Your task to perform on an android device: open chrome privacy settings Image 0: 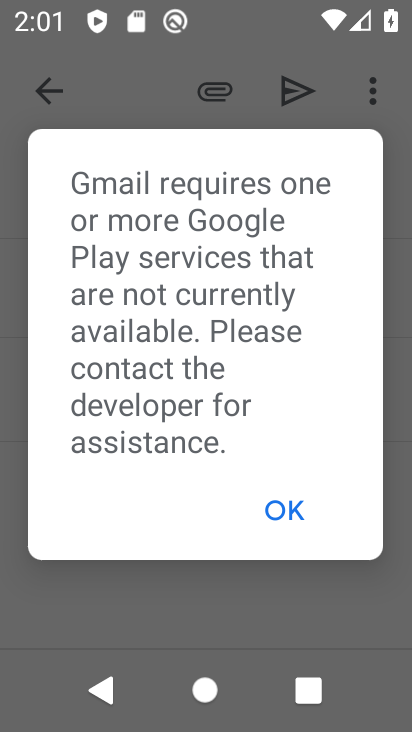
Step 0: click (274, 498)
Your task to perform on an android device: open chrome privacy settings Image 1: 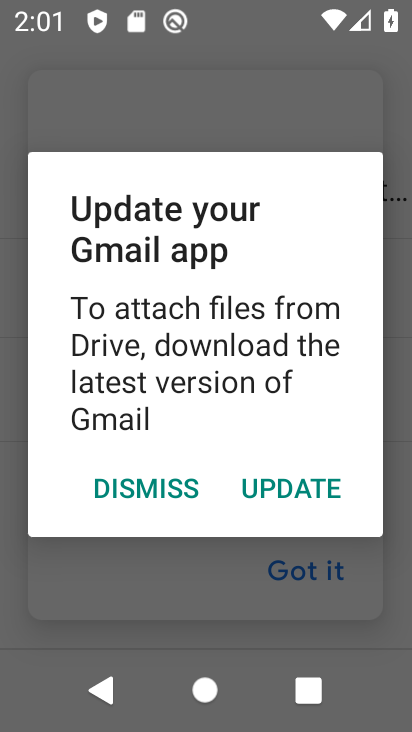
Step 1: press back button
Your task to perform on an android device: open chrome privacy settings Image 2: 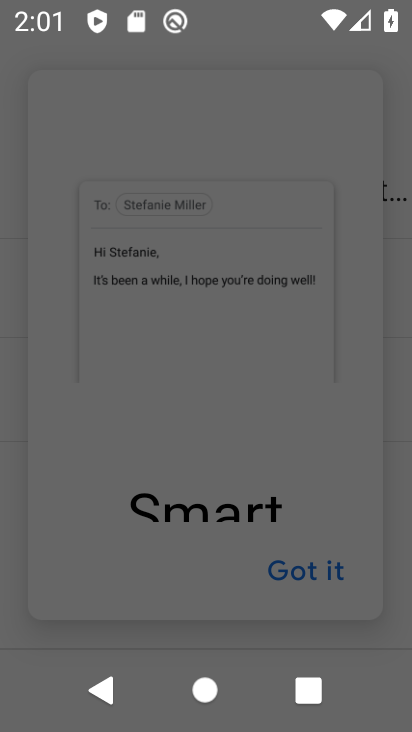
Step 2: press back button
Your task to perform on an android device: open chrome privacy settings Image 3: 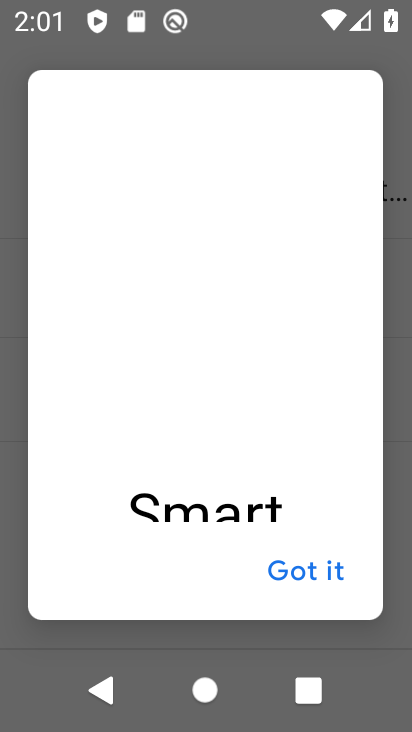
Step 3: press back button
Your task to perform on an android device: open chrome privacy settings Image 4: 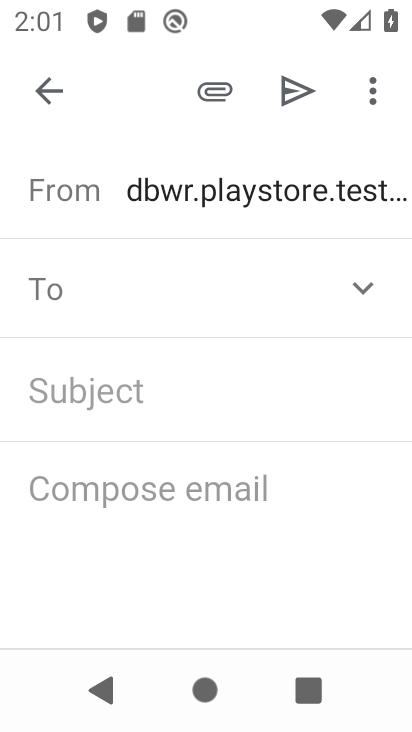
Step 4: press back button
Your task to perform on an android device: open chrome privacy settings Image 5: 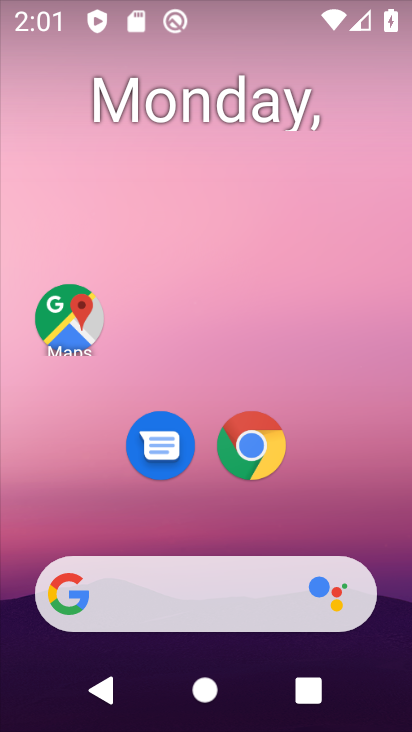
Step 5: drag from (327, 533) to (247, 19)
Your task to perform on an android device: open chrome privacy settings Image 6: 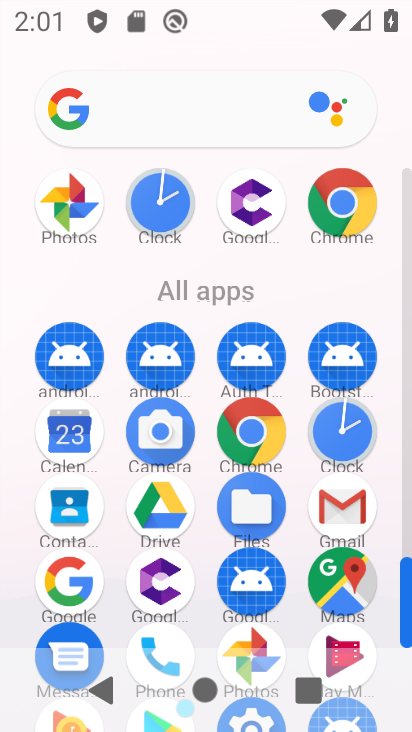
Step 6: drag from (3, 519) to (23, 170)
Your task to perform on an android device: open chrome privacy settings Image 7: 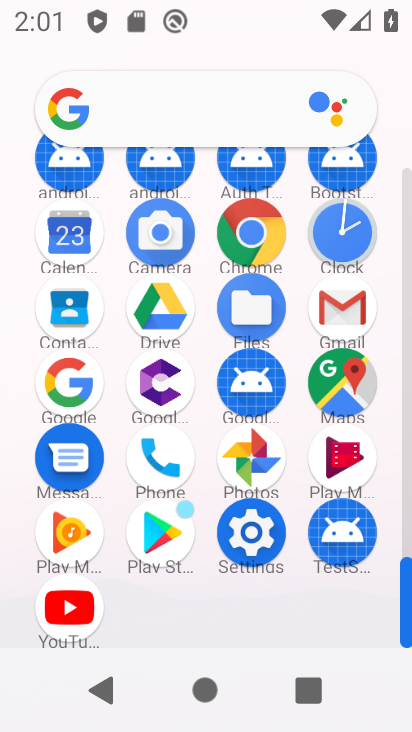
Step 7: click (249, 532)
Your task to perform on an android device: open chrome privacy settings Image 8: 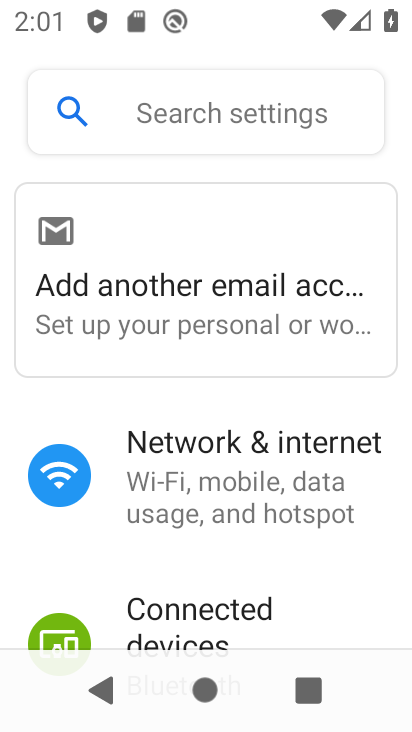
Step 8: drag from (279, 572) to (275, 149)
Your task to perform on an android device: open chrome privacy settings Image 9: 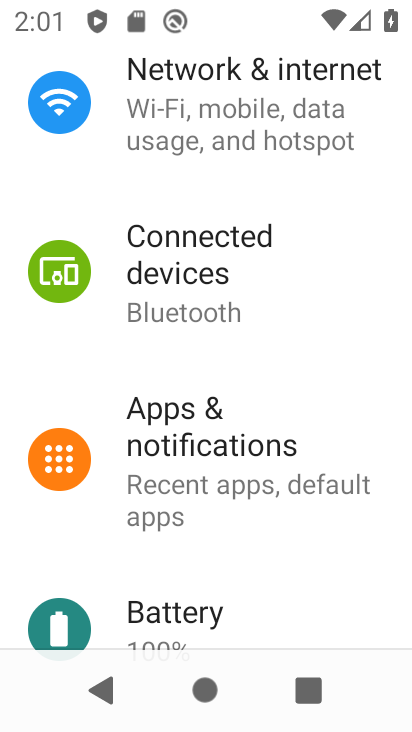
Step 9: drag from (279, 546) to (263, 158)
Your task to perform on an android device: open chrome privacy settings Image 10: 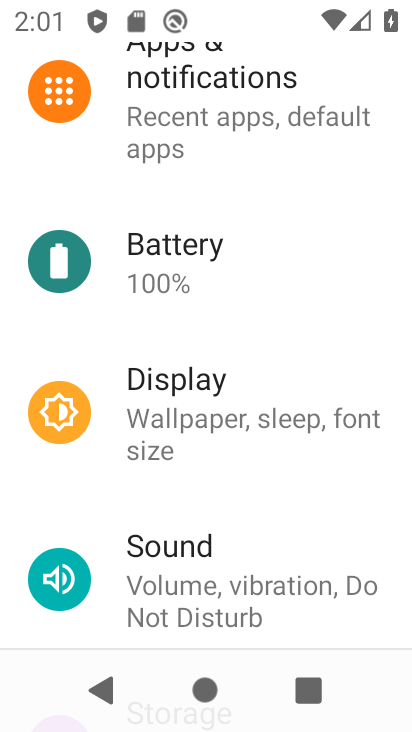
Step 10: press back button
Your task to perform on an android device: open chrome privacy settings Image 11: 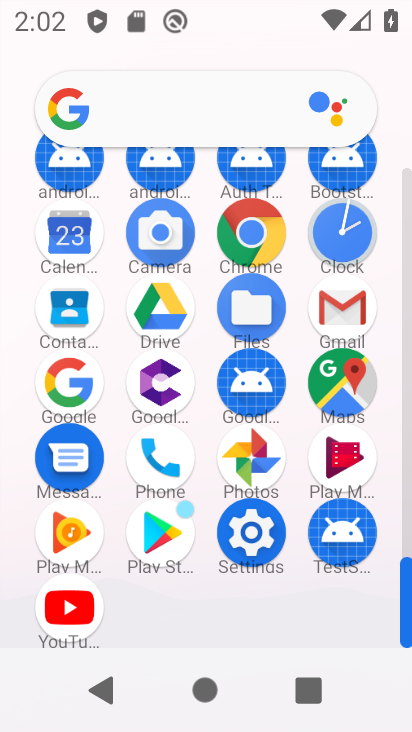
Step 11: click (248, 226)
Your task to perform on an android device: open chrome privacy settings Image 12: 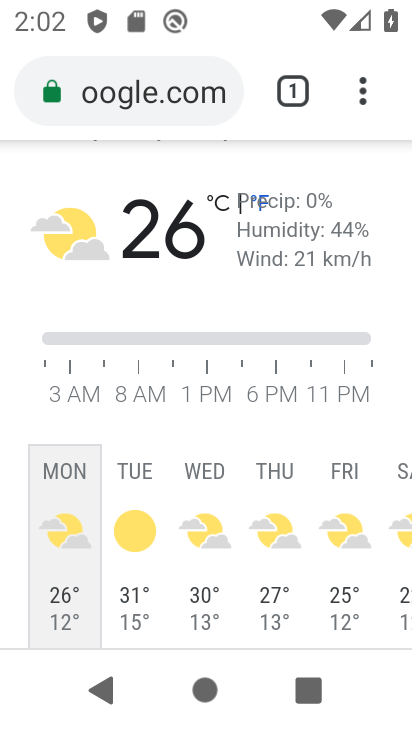
Step 12: drag from (363, 90) to (143, 471)
Your task to perform on an android device: open chrome privacy settings Image 13: 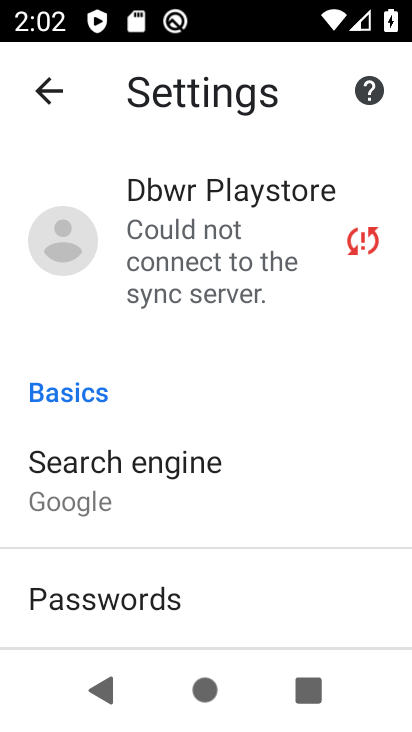
Step 13: drag from (223, 590) to (229, 184)
Your task to perform on an android device: open chrome privacy settings Image 14: 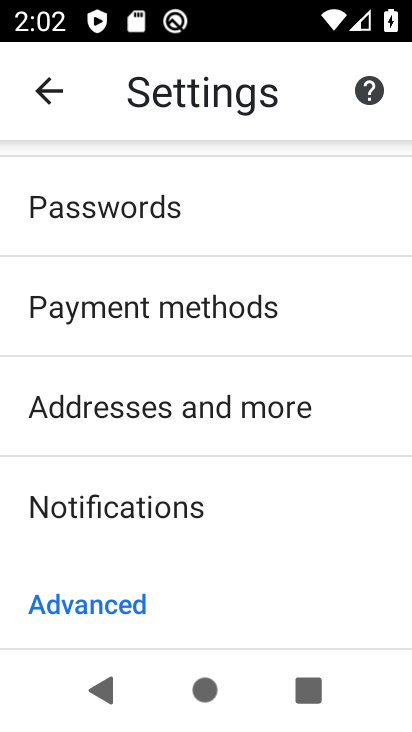
Step 14: drag from (242, 564) to (242, 206)
Your task to perform on an android device: open chrome privacy settings Image 15: 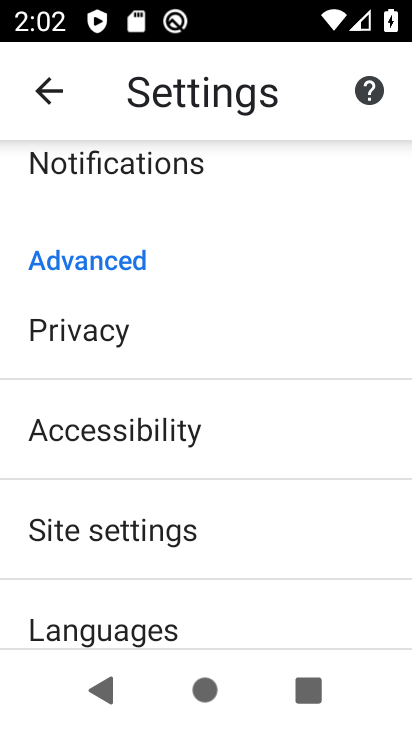
Step 15: drag from (259, 569) to (266, 253)
Your task to perform on an android device: open chrome privacy settings Image 16: 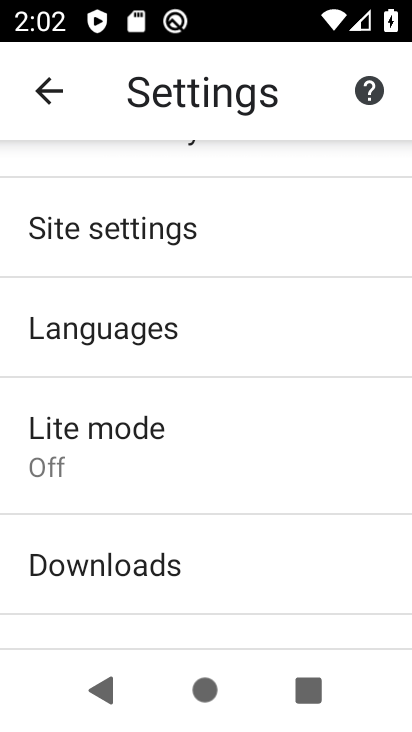
Step 16: drag from (266, 291) to (243, 525)
Your task to perform on an android device: open chrome privacy settings Image 17: 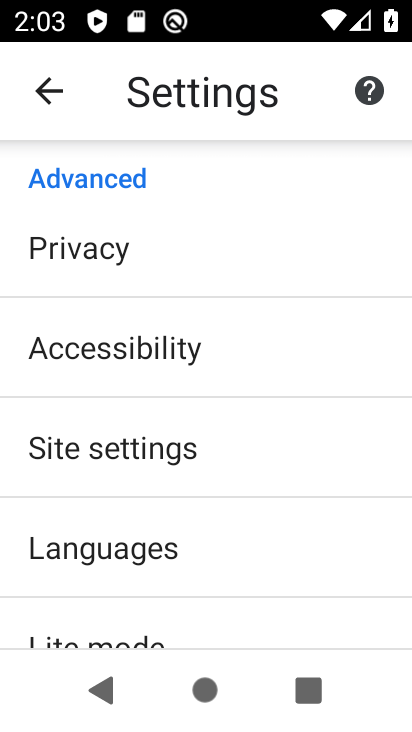
Step 17: click (196, 256)
Your task to perform on an android device: open chrome privacy settings Image 18: 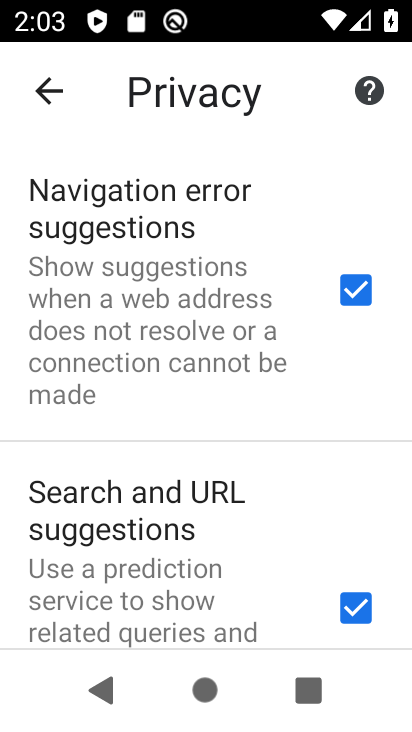
Step 18: task complete